Your task to perform on an android device: What's the weather? Image 0: 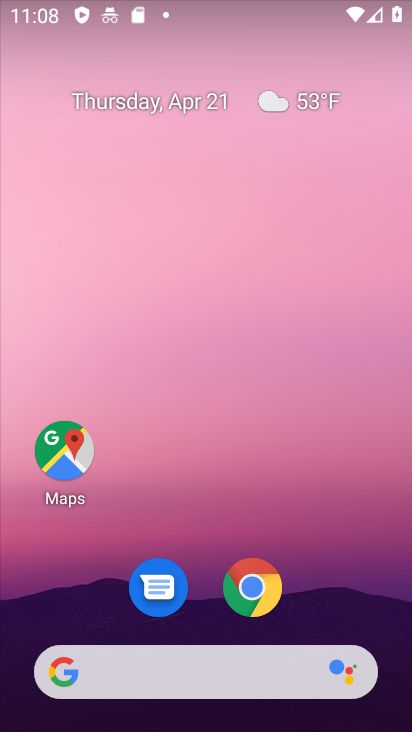
Step 0: click (267, 100)
Your task to perform on an android device: What's the weather? Image 1: 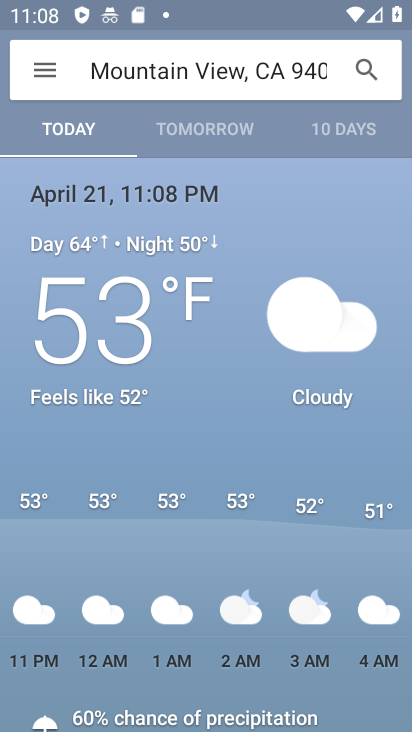
Step 1: task complete